Your task to perform on an android device: Check the weather Image 0: 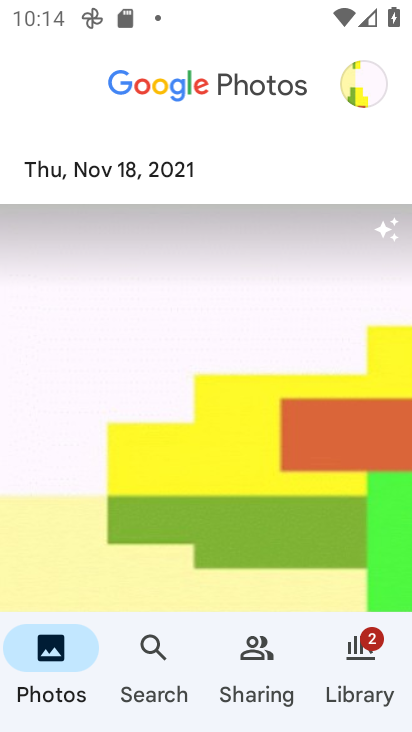
Step 0: press home button
Your task to perform on an android device: Check the weather Image 1: 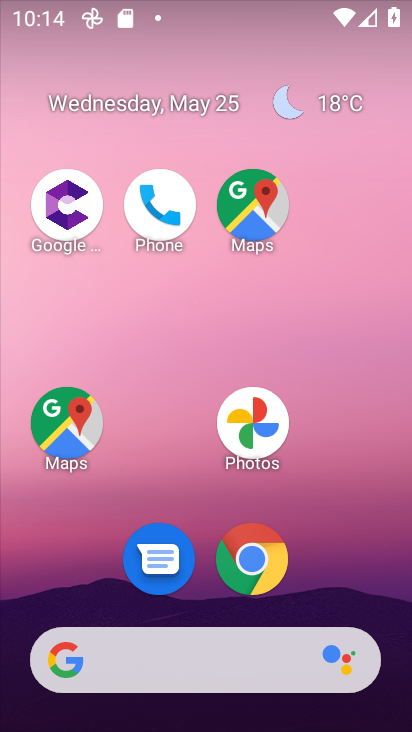
Step 1: click (76, 424)
Your task to perform on an android device: Check the weather Image 2: 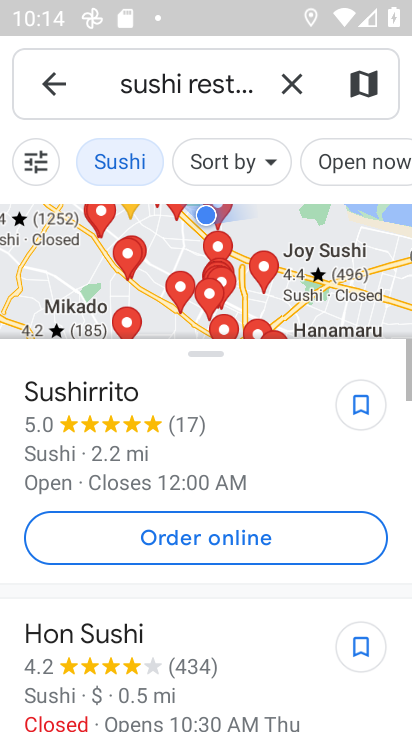
Step 2: press home button
Your task to perform on an android device: Check the weather Image 3: 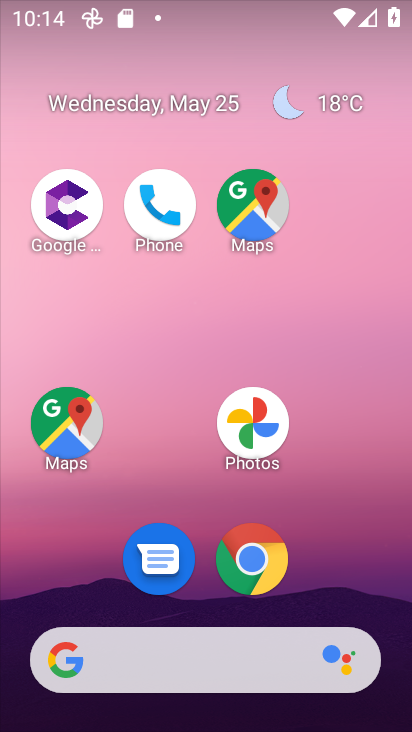
Step 3: click (325, 100)
Your task to perform on an android device: Check the weather Image 4: 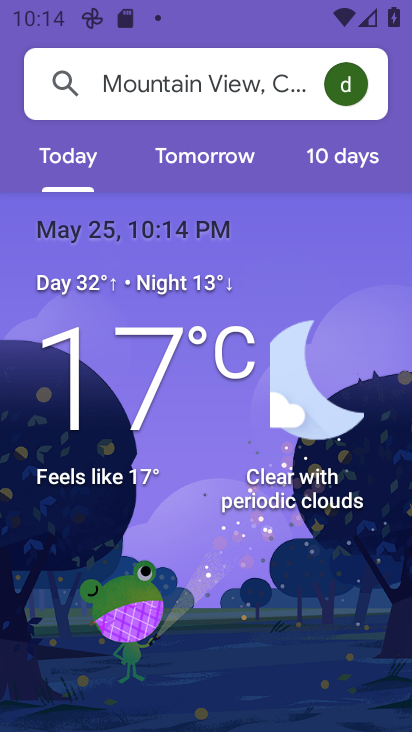
Step 4: task complete